Your task to perform on an android device: Open calendar and show me the third week of next month Image 0: 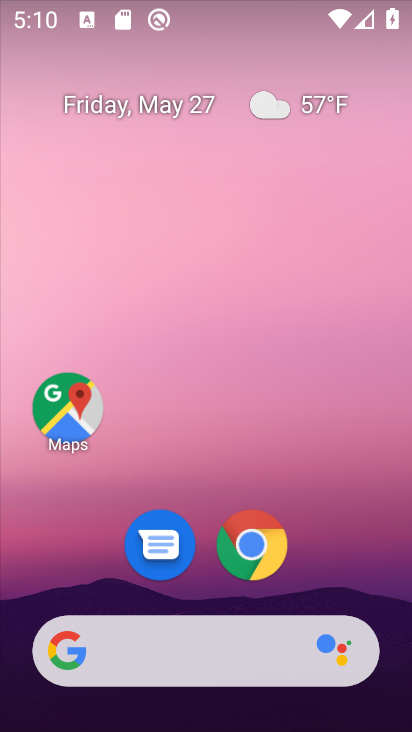
Step 0: drag from (391, 705) to (357, 279)
Your task to perform on an android device: Open calendar and show me the third week of next month Image 1: 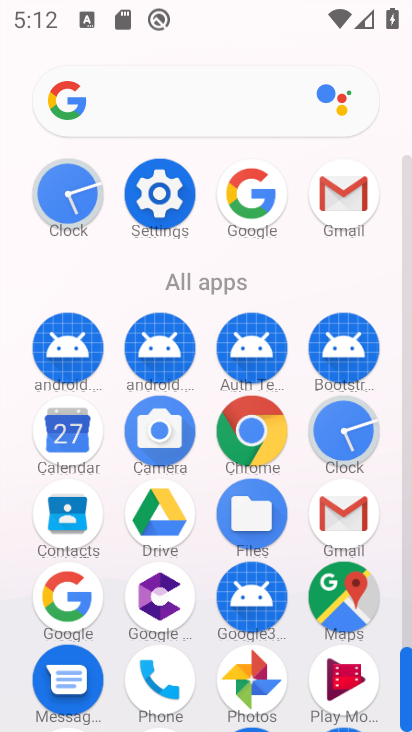
Step 1: click (65, 439)
Your task to perform on an android device: Open calendar and show me the third week of next month Image 2: 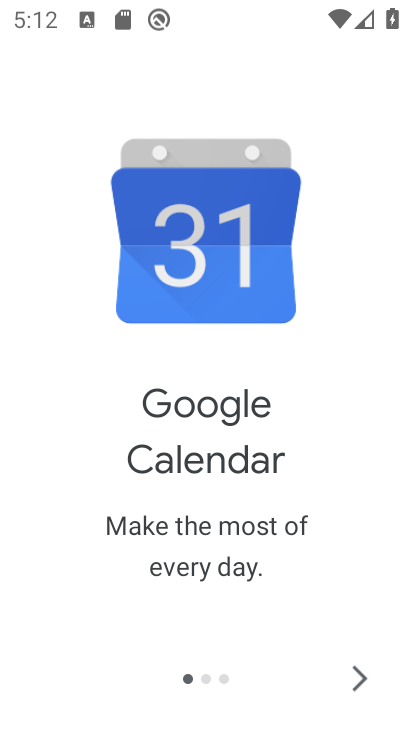
Step 2: click (348, 680)
Your task to perform on an android device: Open calendar and show me the third week of next month Image 3: 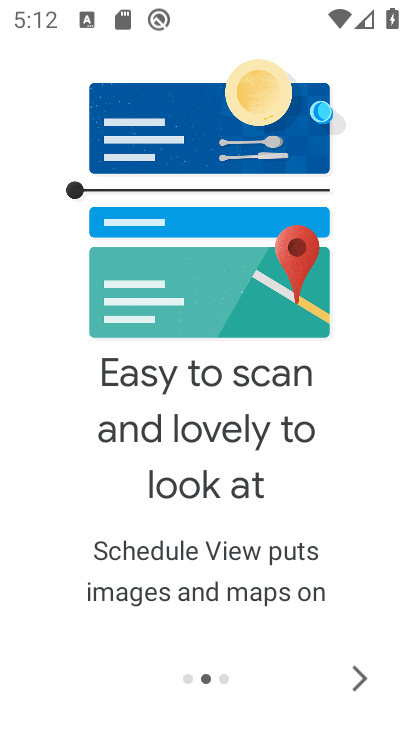
Step 3: click (348, 680)
Your task to perform on an android device: Open calendar and show me the third week of next month Image 4: 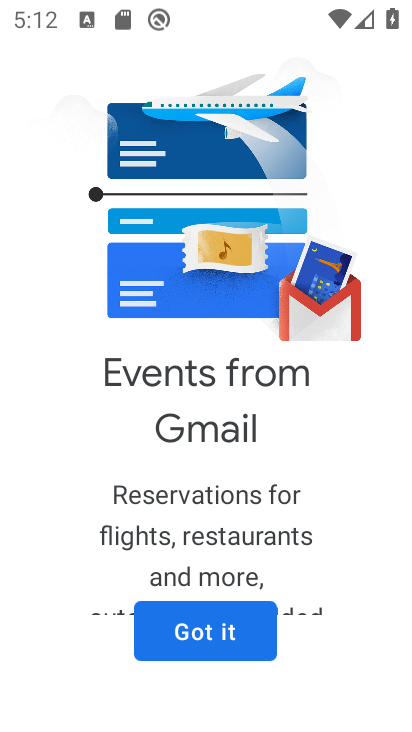
Step 4: click (210, 633)
Your task to perform on an android device: Open calendar and show me the third week of next month Image 5: 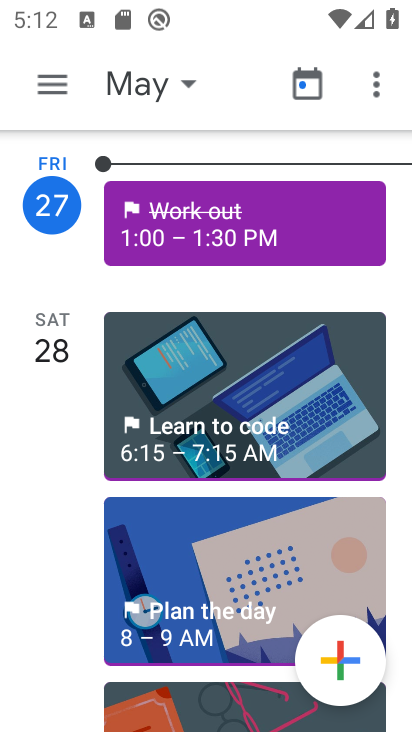
Step 5: click (179, 78)
Your task to perform on an android device: Open calendar and show me the third week of next month Image 6: 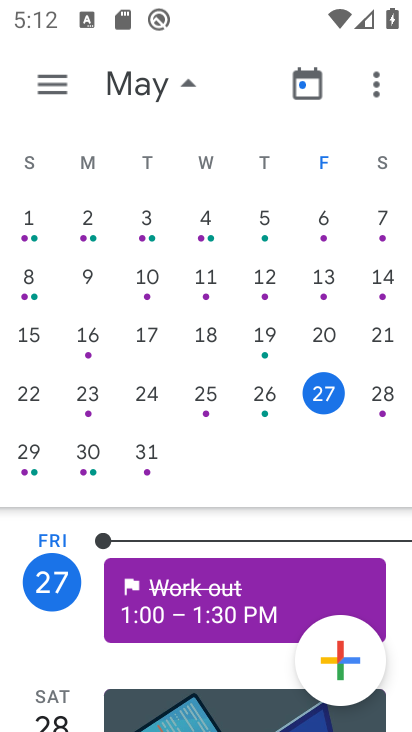
Step 6: drag from (399, 296) to (62, 278)
Your task to perform on an android device: Open calendar and show me the third week of next month Image 7: 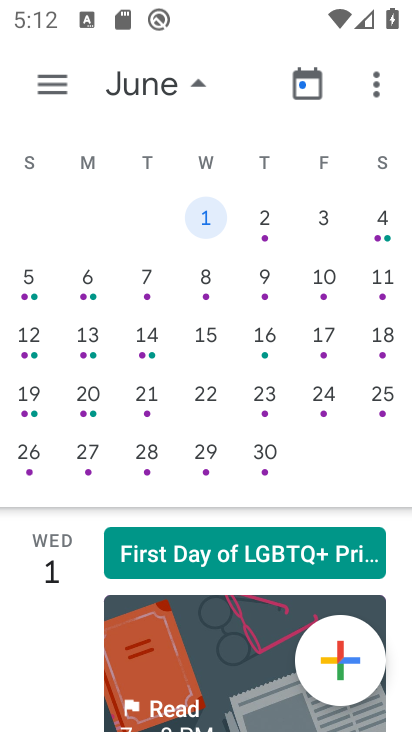
Step 7: click (256, 334)
Your task to perform on an android device: Open calendar and show me the third week of next month Image 8: 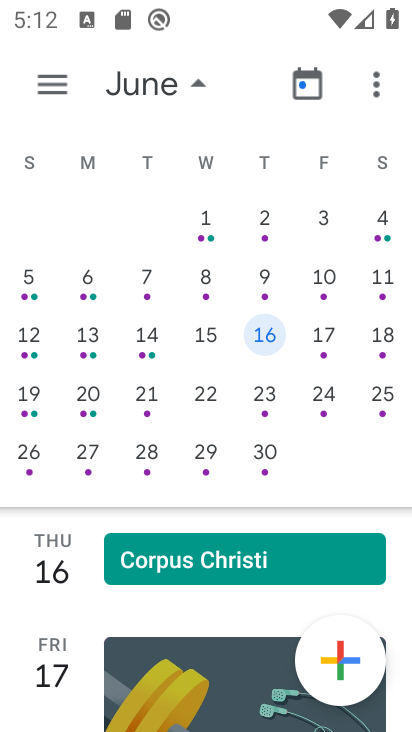
Step 8: task complete